Your task to perform on an android device: Open eBay Image 0: 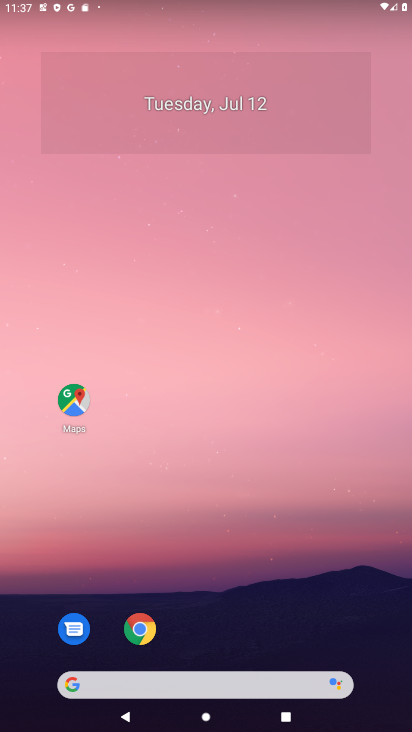
Step 0: drag from (265, 369) to (222, 138)
Your task to perform on an android device: Open eBay Image 1: 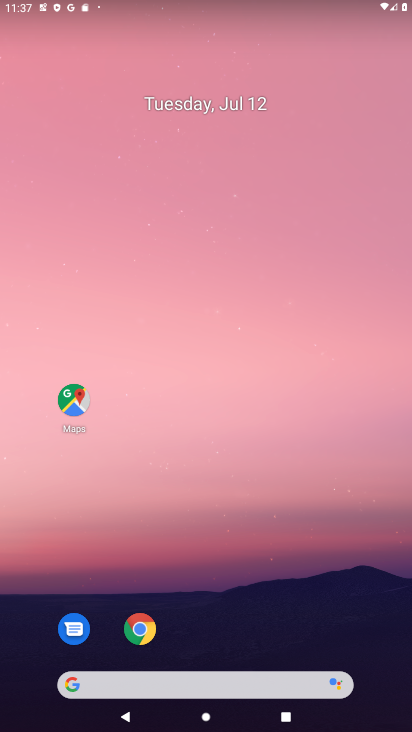
Step 1: drag from (235, 325) to (219, 67)
Your task to perform on an android device: Open eBay Image 2: 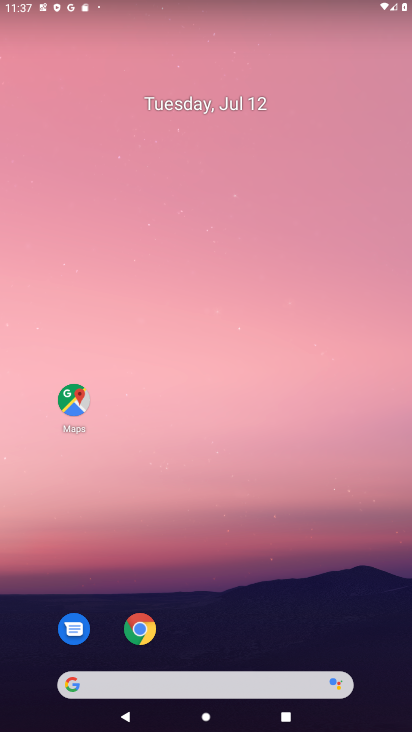
Step 2: drag from (267, 488) to (225, 150)
Your task to perform on an android device: Open eBay Image 3: 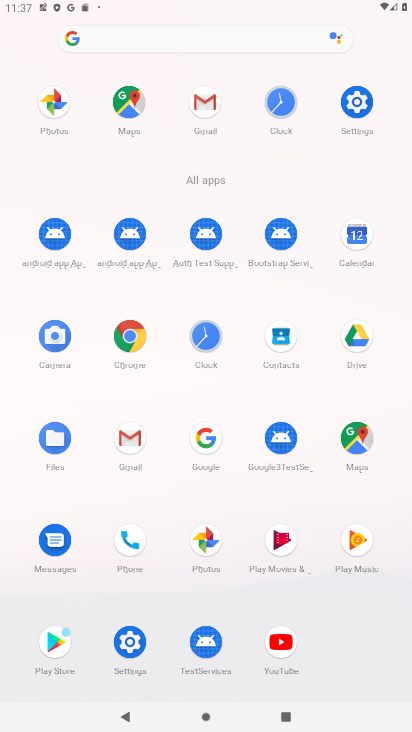
Step 3: click (131, 334)
Your task to perform on an android device: Open eBay Image 4: 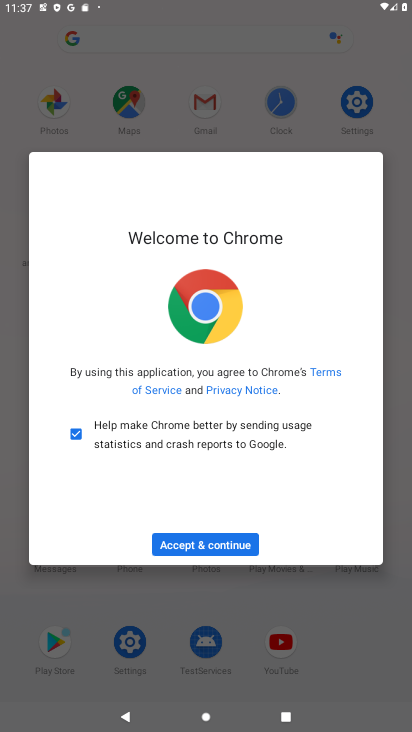
Step 4: click (221, 546)
Your task to perform on an android device: Open eBay Image 5: 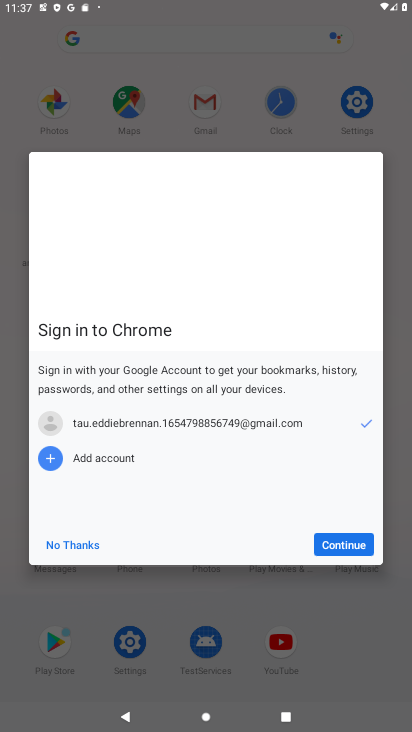
Step 5: click (341, 548)
Your task to perform on an android device: Open eBay Image 6: 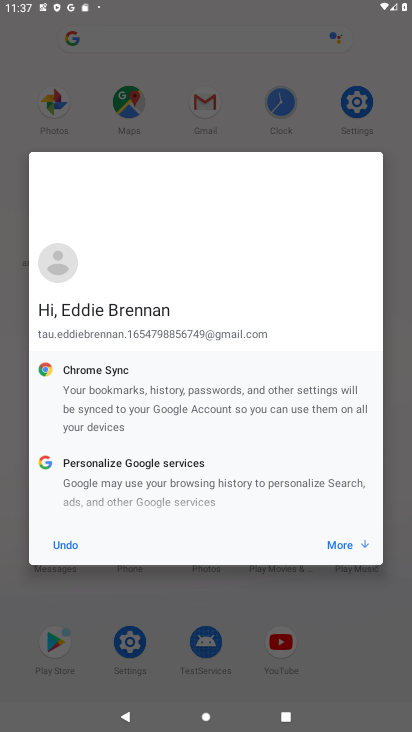
Step 6: click (341, 548)
Your task to perform on an android device: Open eBay Image 7: 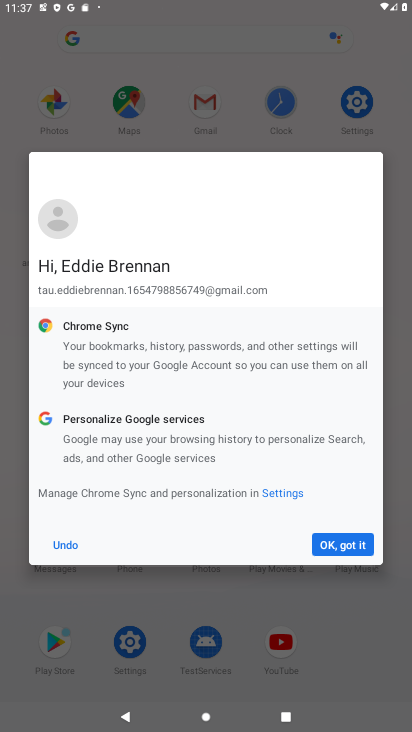
Step 7: click (341, 548)
Your task to perform on an android device: Open eBay Image 8: 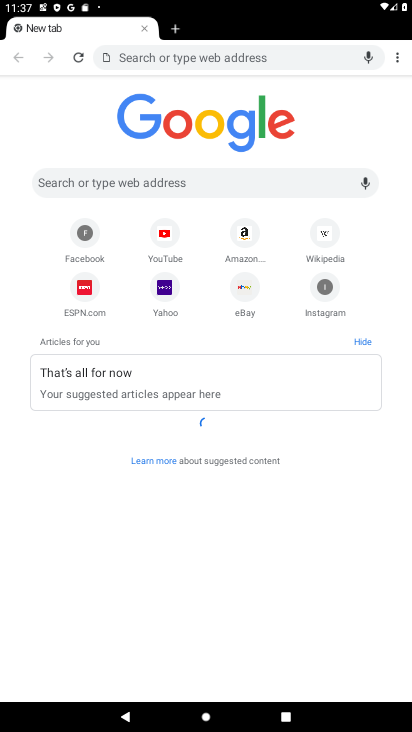
Step 8: click (240, 294)
Your task to perform on an android device: Open eBay Image 9: 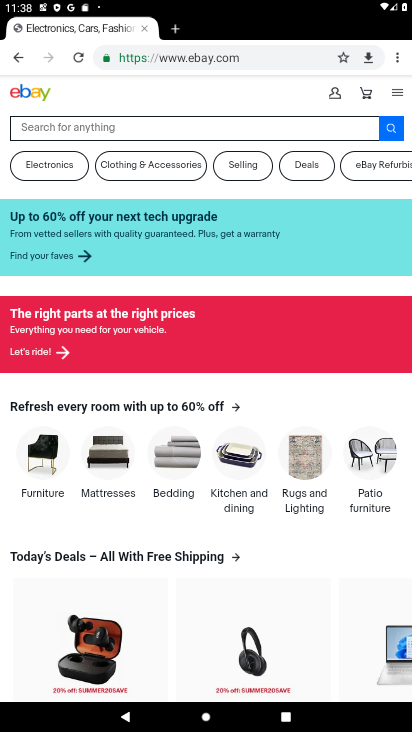
Step 9: task complete